Your task to perform on an android device: find photos in the google photos app Image 0: 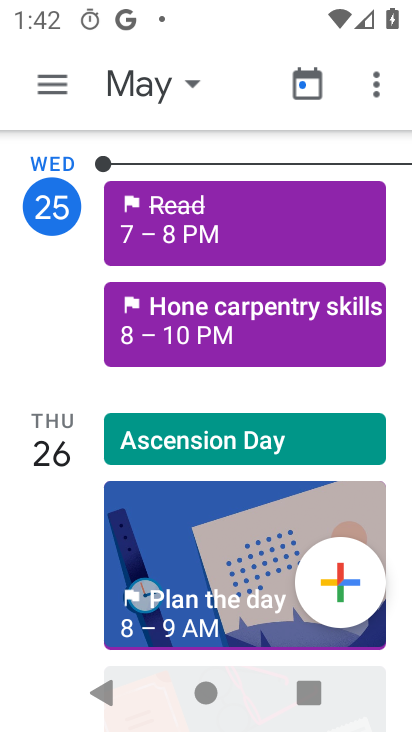
Step 0: press home button
Your task to perform on an android device: find photos in the google photos app Image 1: 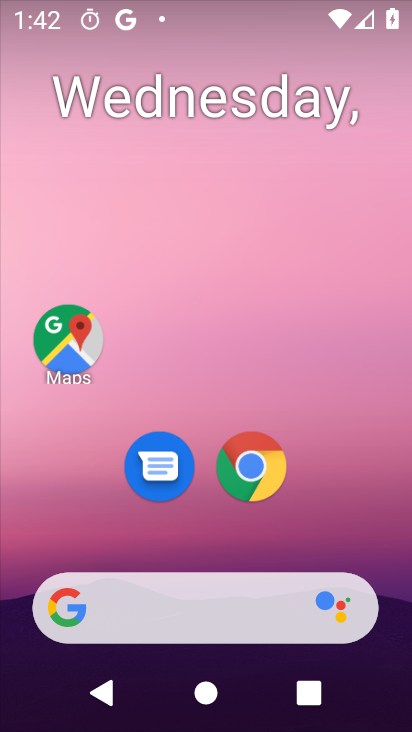
Step 1: drag from (329, 504) to (306, 130)
Your task to perform on an android device: find photos in the google photos app Image 2: 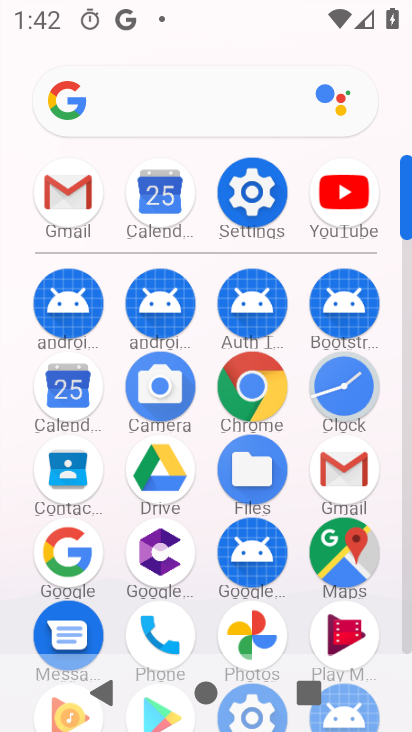
Step 2: click (242, 624)
Your task to perform on an android device: find photos in the google photos app Image 3: 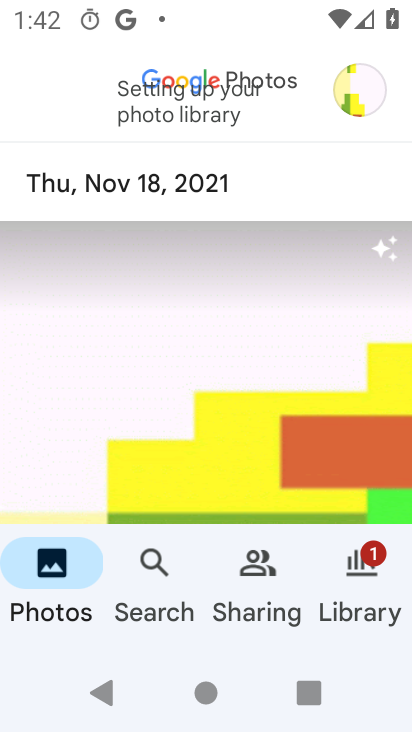
Step 3: task complete